Your task to perform on an android device: Go to location settings Image 0: 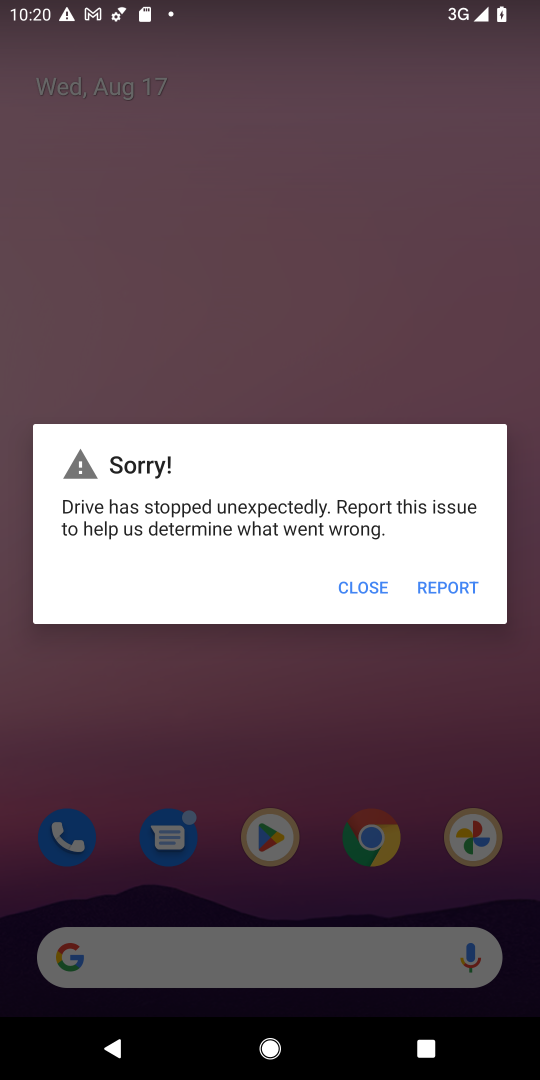
Step 0: press home button
Your task to perform on an android device: Go to location settings Image 1: 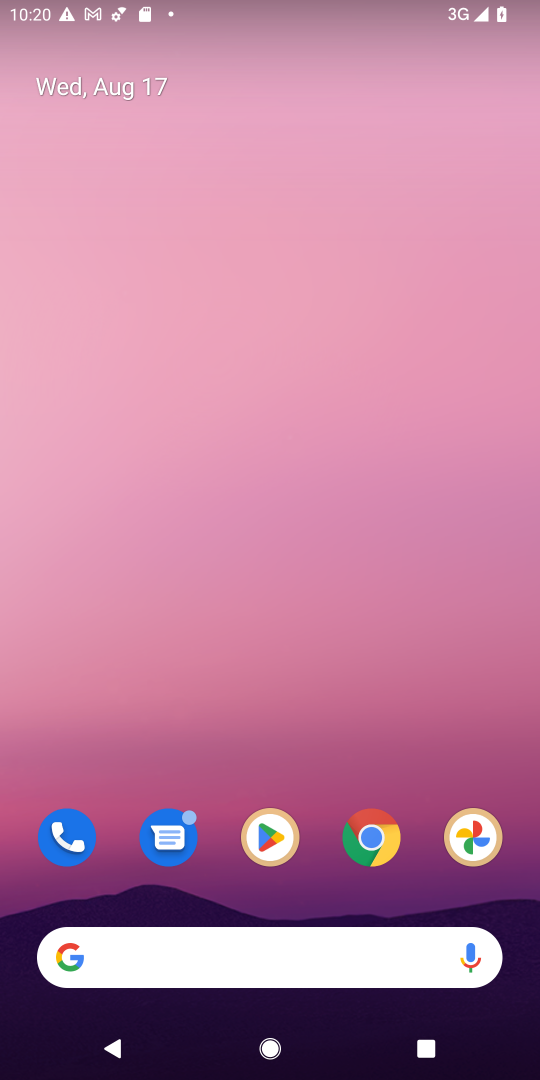
Step 1: drag from (258, 955) to (296, 214)
Your task to perform on an android device: Go to location settings Image 2: 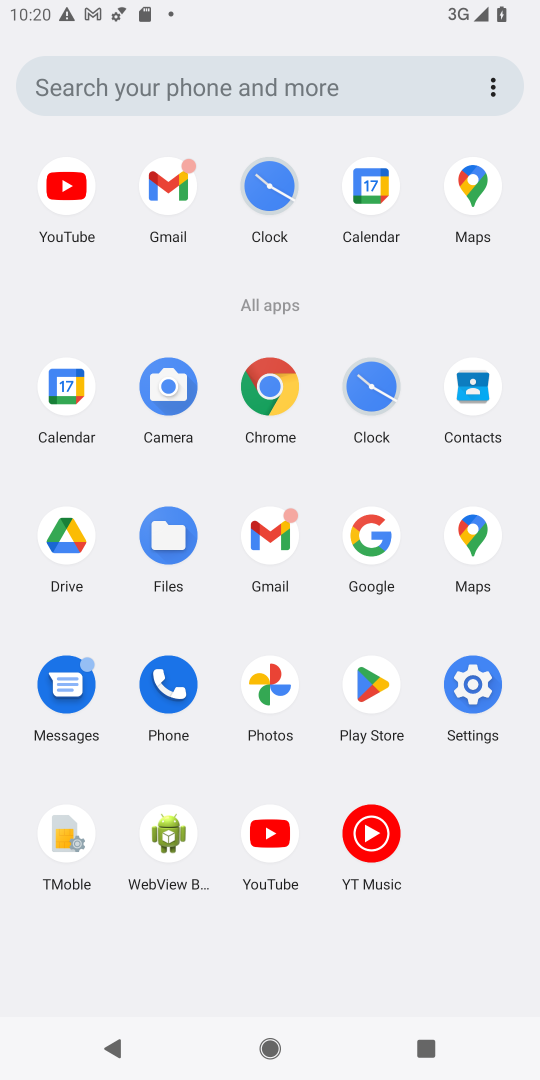
Step 2: click (472, 685)
Your task to perform on an android device: Go to location settings Image 3: 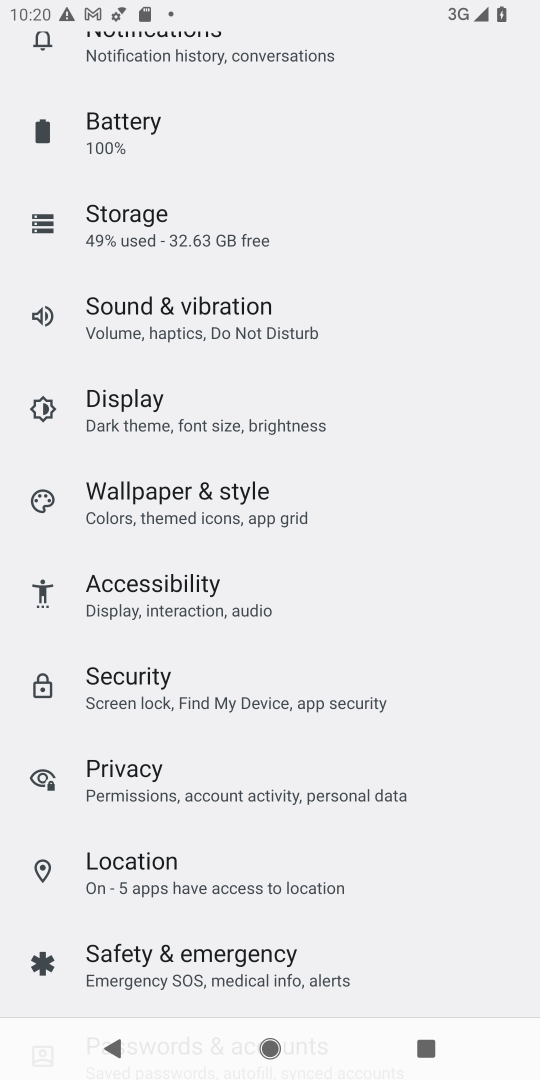
Step 3: click (288, 882)
Your task to perform on an android device: Go to location settings Image 4: 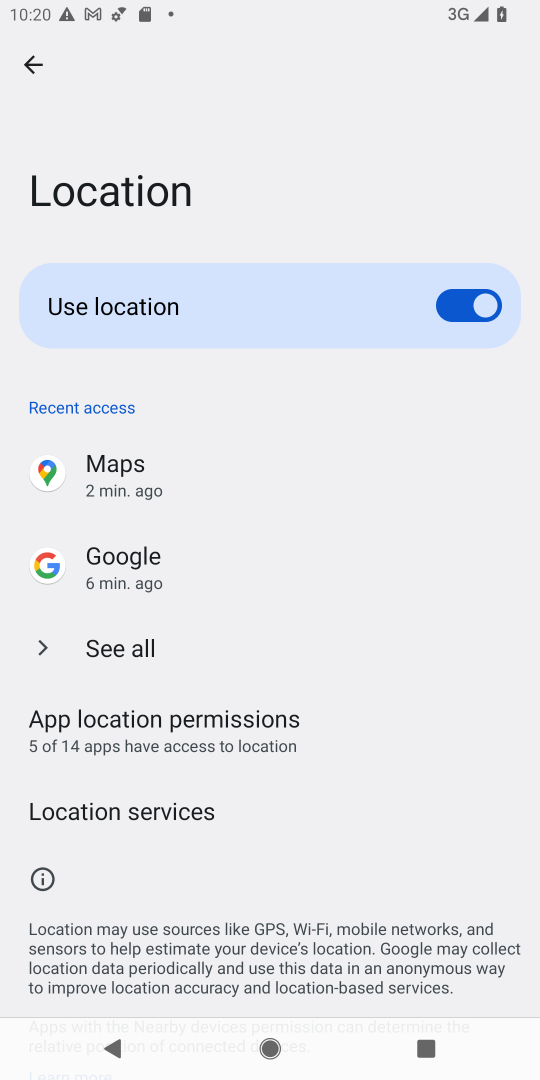
Step 4: task complete